Your task to perform on an android device: find which apps use the phone's location Image 0: 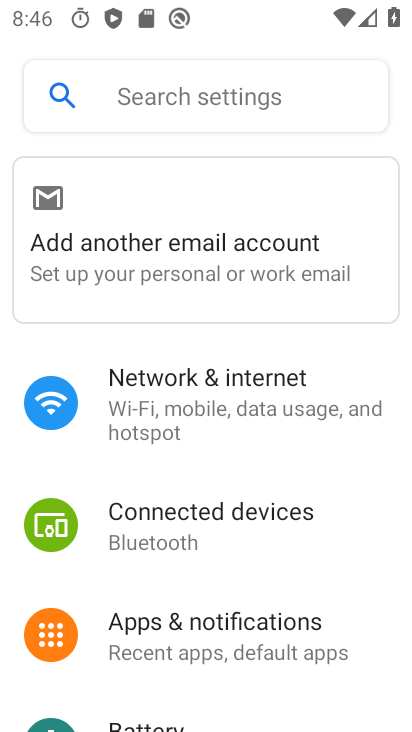
Step 0: press home button
Your task to perform on an android device: find which apps use the phone's location Image 1: 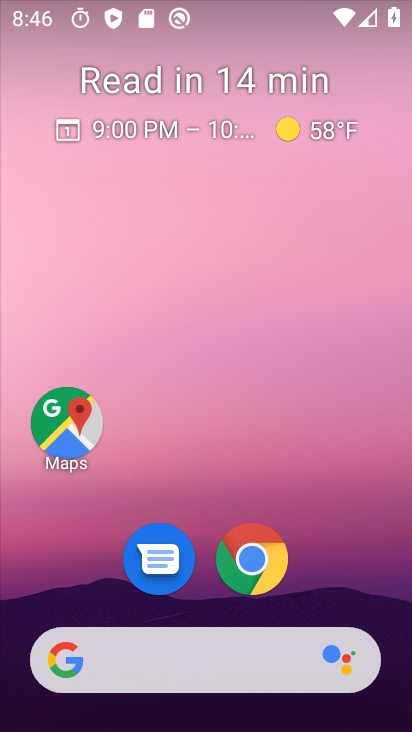
Step 1: drag from (341, 532) to (411, 145)
Your task to perform on an android device: find which apps use the phone's location Image 2: 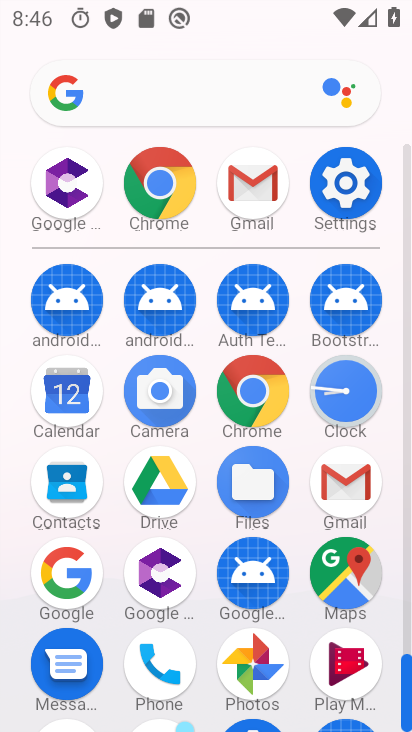
Step 2: click (338, 191)
Your task to perform on an android device: find which apps use the phone's location Image 3: 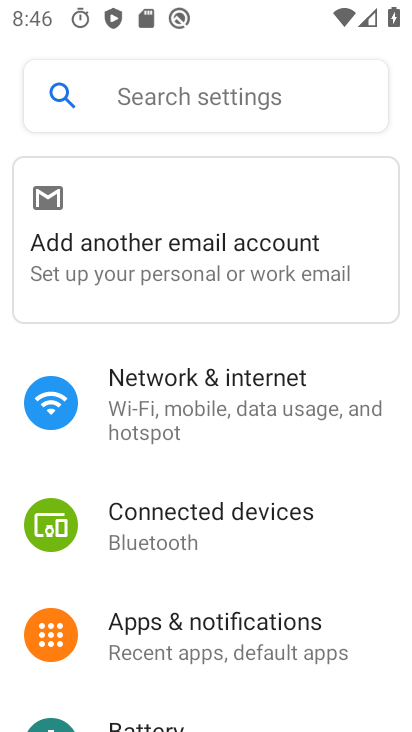
Step 3: drag from (129, 463) to (202, 188)
Your task to perform on an android device: find which apps use the phone's location Image 4: 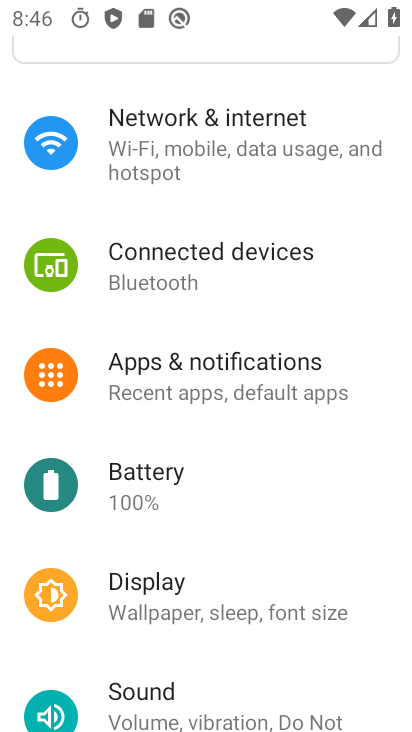
Step 4: drag from (136, 436) to (190, 135)
Your task to perform on an android device: find which apps use the phone's location Image 5: 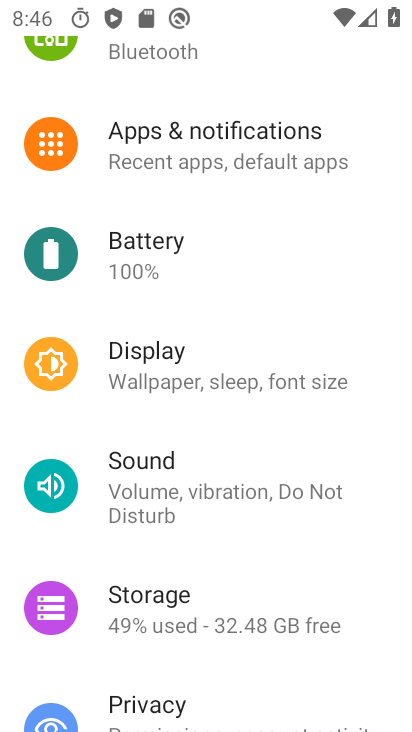
Step 5: drag from (133, 425) to (200, 146)
Your task to perform on an android device: find which apps use the phone's location Image 6: 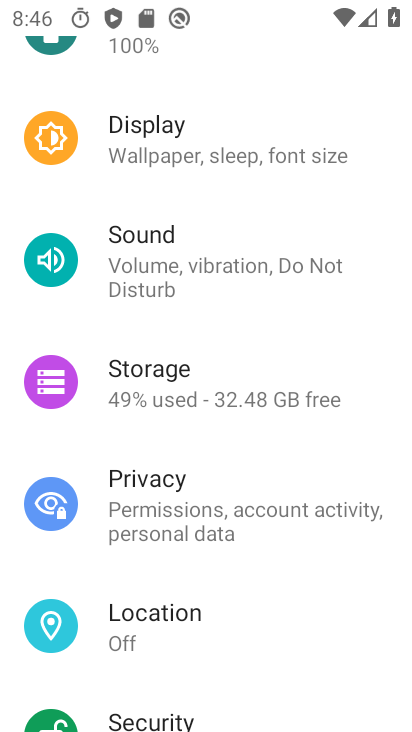
Step 6: click (155, 622)
Your task to perform on an android device: find which apps use the phone's location Image 7: 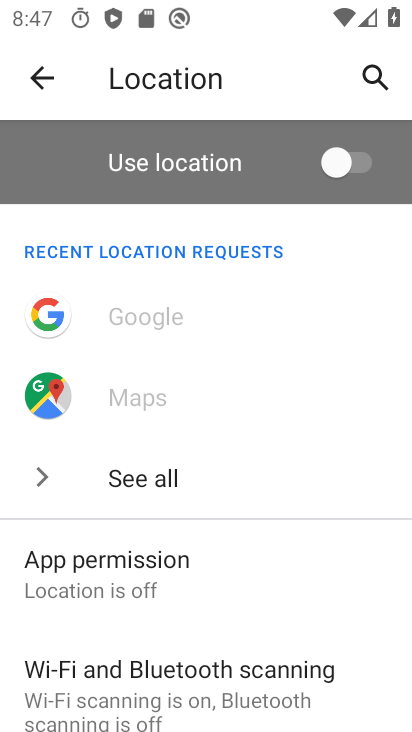
Step 7: click (140, 602)
Your task to perform on an android device: find which apps use the phone's location Image 8: 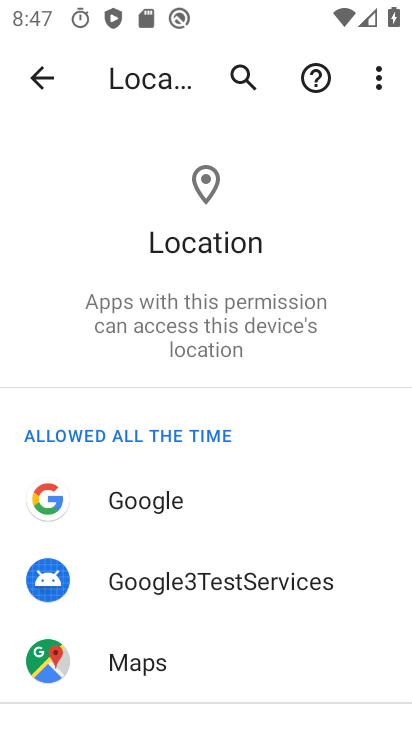
Step 8: click (140, 658)
Your task to perform on an android device: find which apps use the phone's location Image 9: 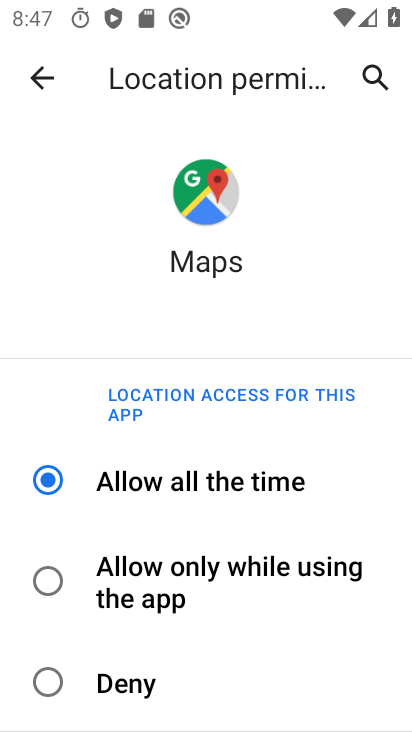
Step 9: task complete